Your task to perform on an android device: Open eBay Image 0: 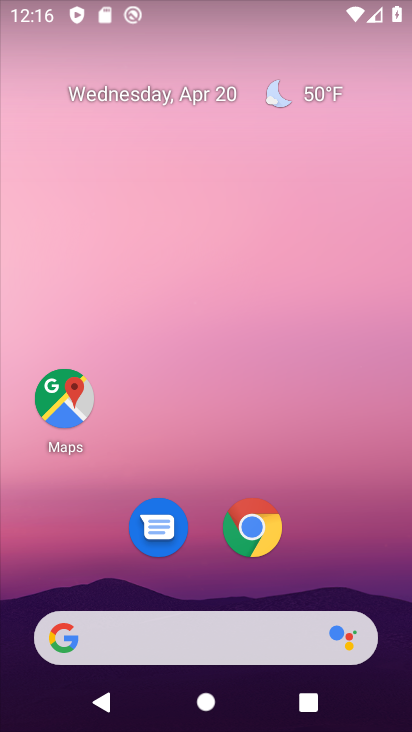
Step 0: click (252, 529)
Your task to perform on an android device: Open eBay Image 1: 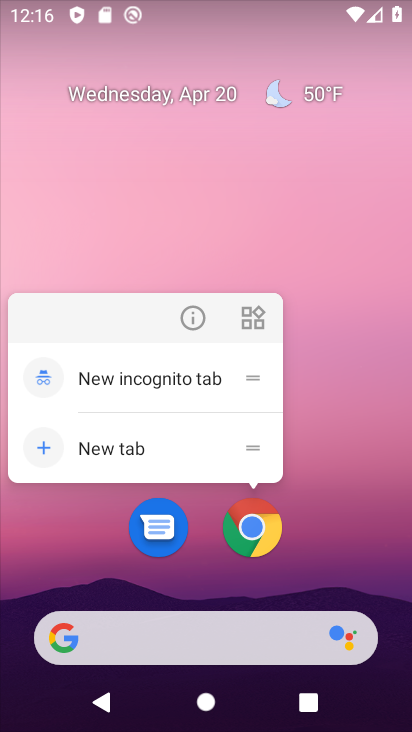
Step 1: click (253, 534)
Your task to perform on an android device: Open eBay Image 2: 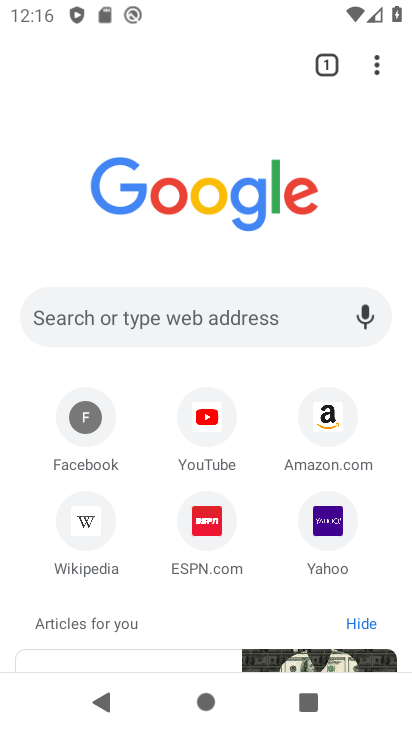
Step 2: click (202, 320)
Your task to perform on an android device: Open eBay Image 3: 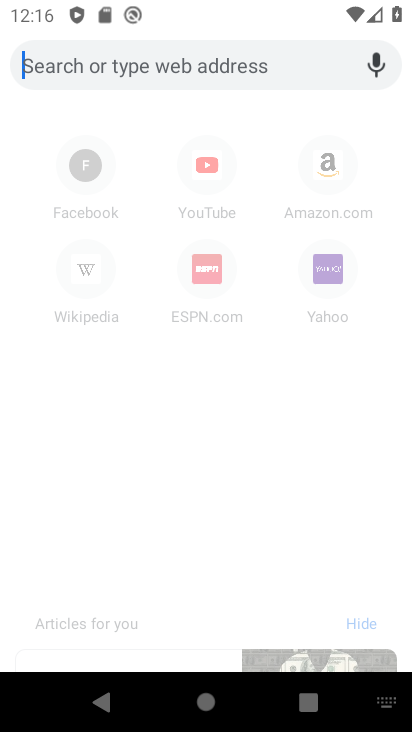
Step 3: type "ebay"
Your task to perform on an android device: Open eBay Image 4: 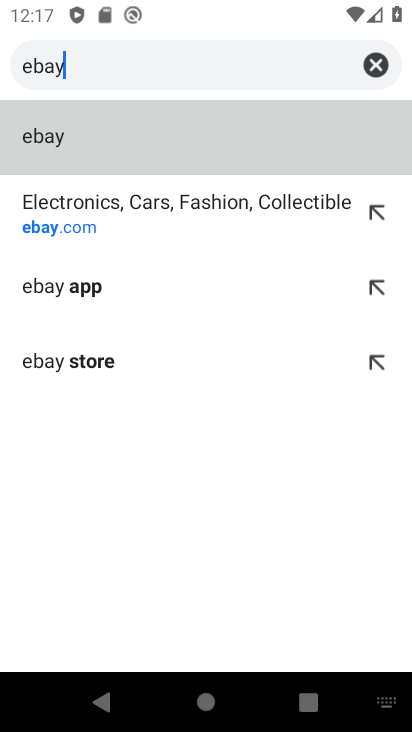
Step 4: click (31, 135)
Your task to perform on an android device: Open eBay Image 5: 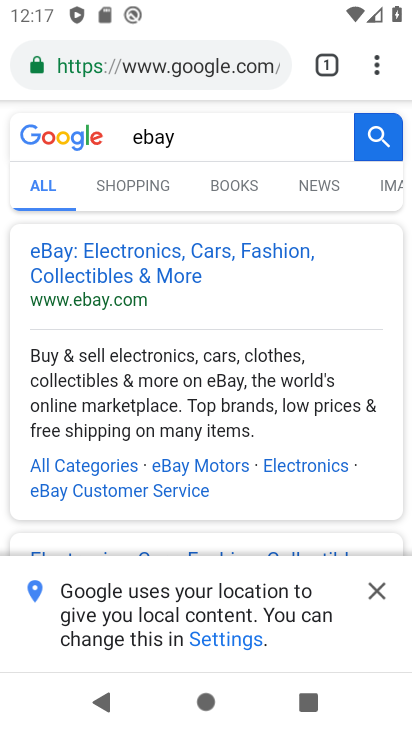
Step 5: click (61, 298)
Your task to perform on an android device: Open eBay Image 6: 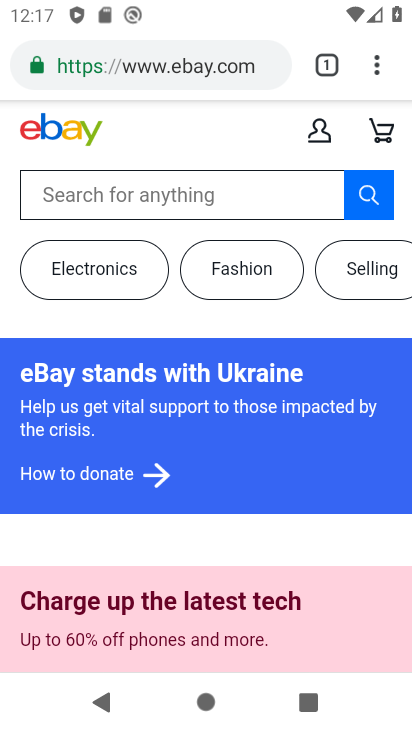
Step 6: task complete